Your task to perform on an android device: see creations saved in the google photos Image 0: 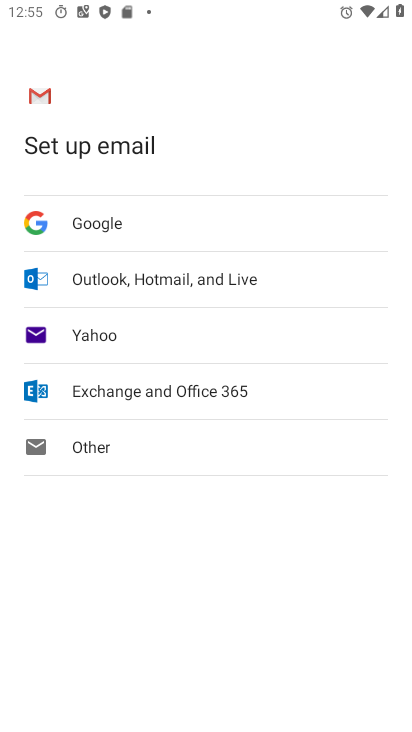
Step 0: press home button
Your task to perform on an android device: see creations saved in the google photos Image 1: 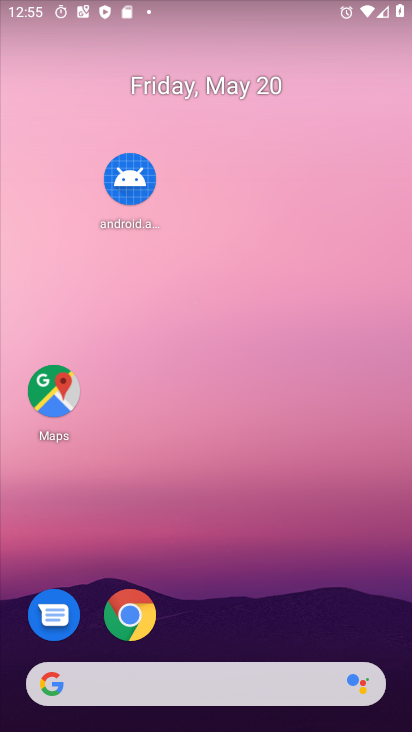
Step 1: drag from (316, 631) to (348, 94)
Your task to perform on an android device: see creations saved in the google photos Image 2: 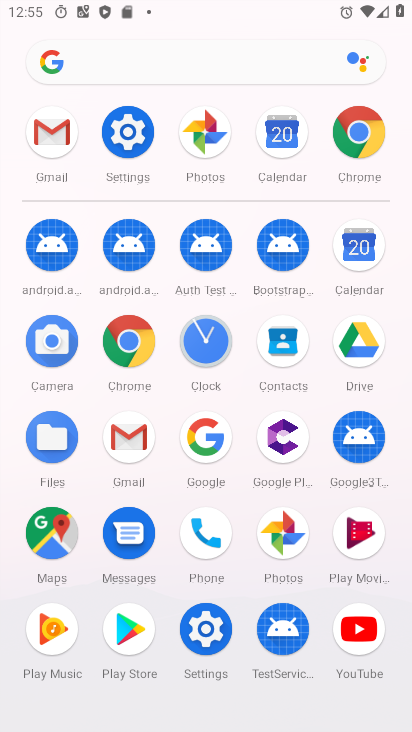
Step 2: click (208, 135)
Your task to perform on an android device: see creations saved in the google photos Image 3: 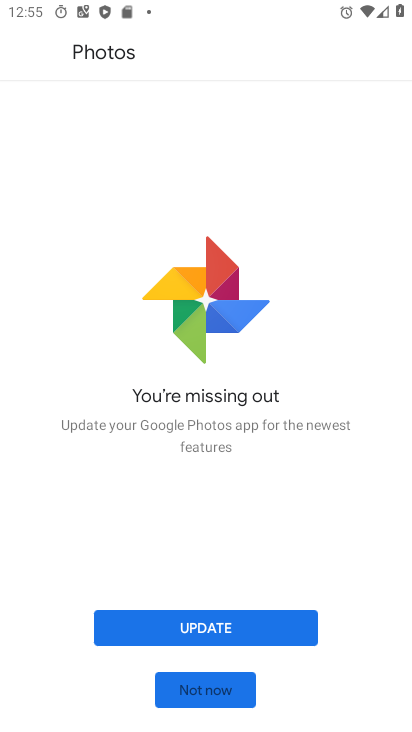
Step 3: click (181, 679)
Your task to perform on an android device: see creations saved in the google photos Image 4: 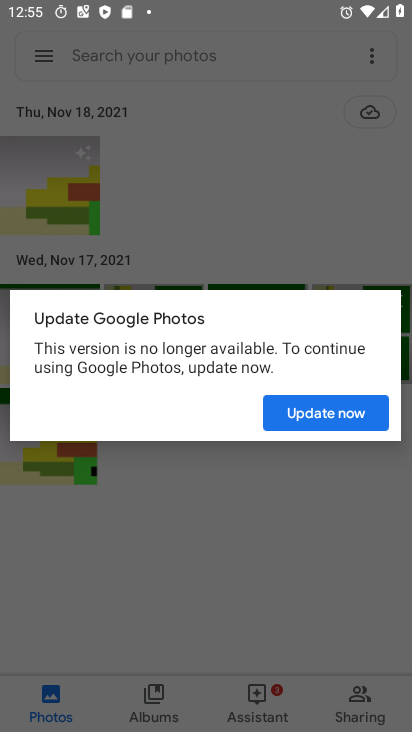
Step 4: click (371, 407)
Your task to perform on an android device: see creations saved in the google photos Image 5: 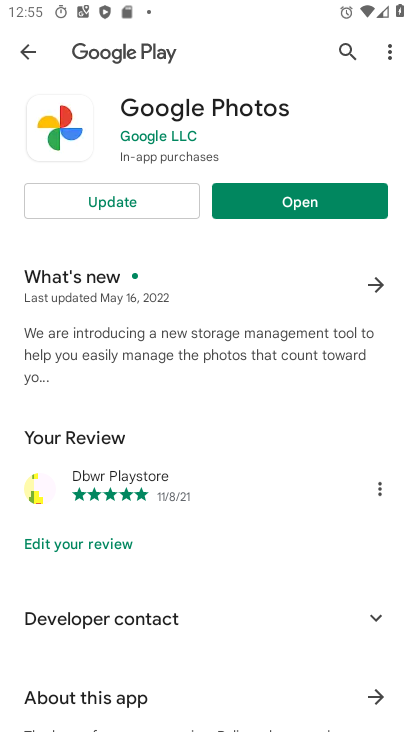
Step 5: click (360, 195)
Your task to perform on an android device: see creations saved in the google photos Image 6: 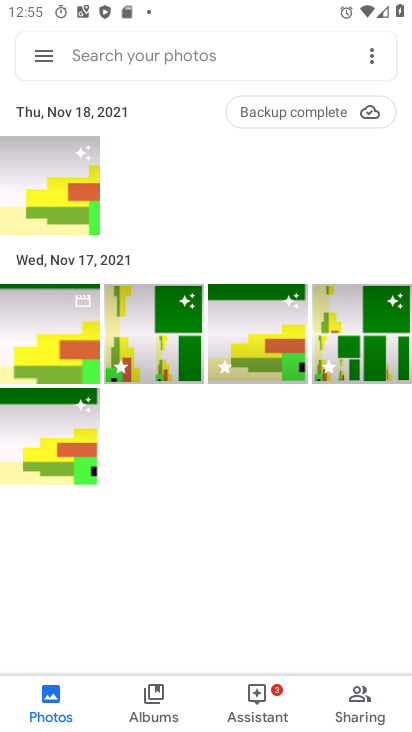
Step 6: click (260, 57)
Your task to perform on an android device: see creations saved in the google photos Image 7: 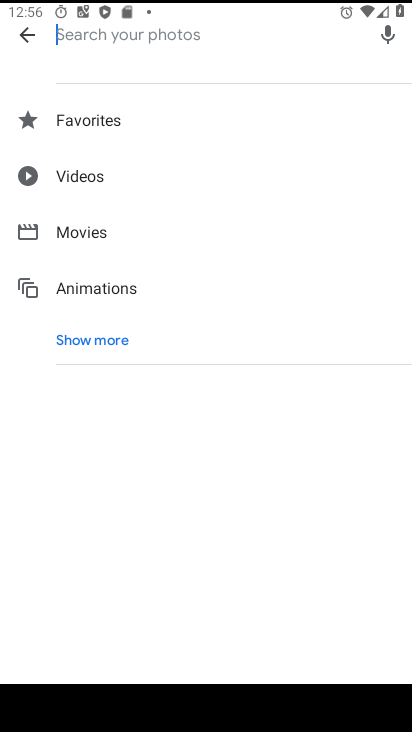
Step 7: click (100, 335)
Your task to perform on an android device: see creations saved in the google photos Image 8: 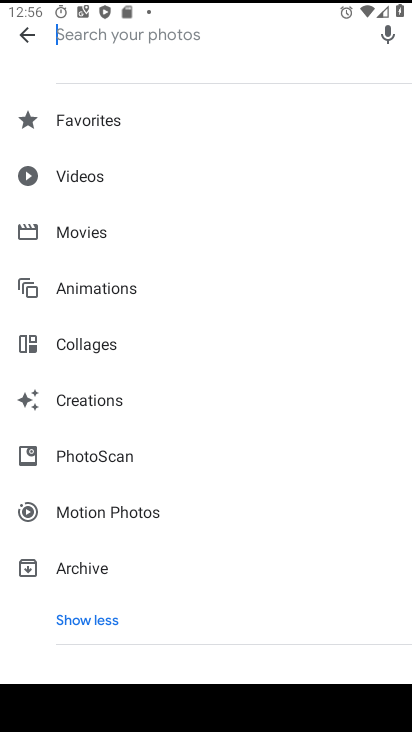
Step 8: click (98, 404)
Your task to perform on an android device: see creations saved in the google photos Image 9: 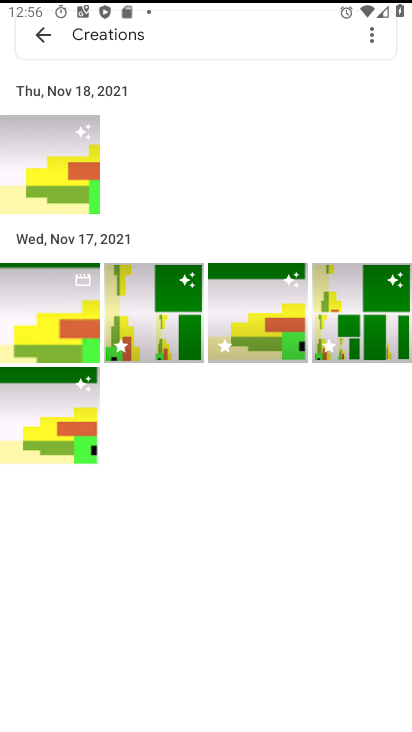
Step 9: task complete